Your task to perform on an android device: toggle notification dots Image 0: 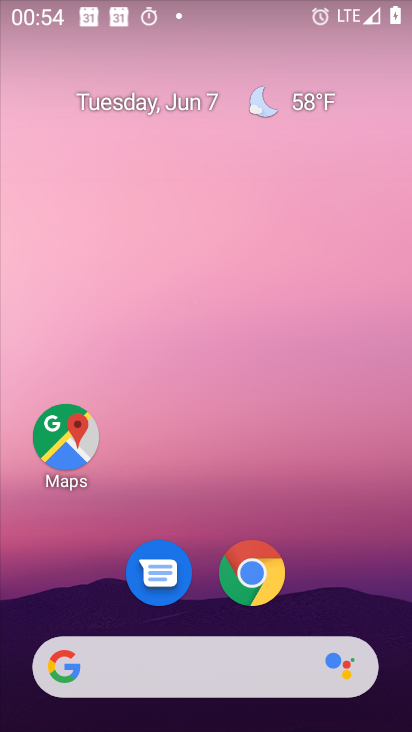
Step 0: press home button
Your task to perform on an android device: toggle notification dots Image 1: 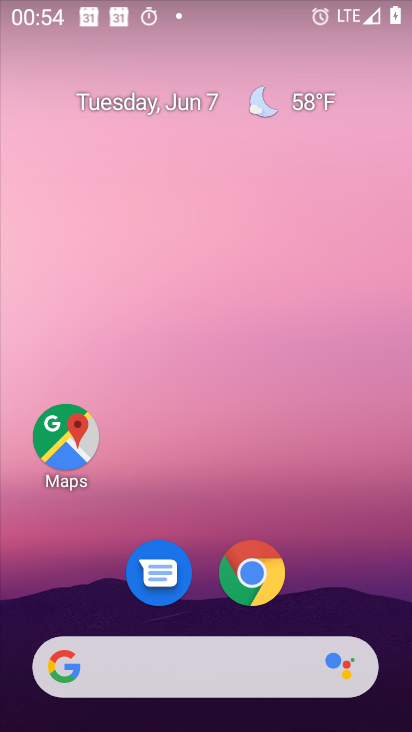
Step 1: drag from (356, 602) to (331, 4)
Your task to perform on an android device: toggle notification dots Image 2: 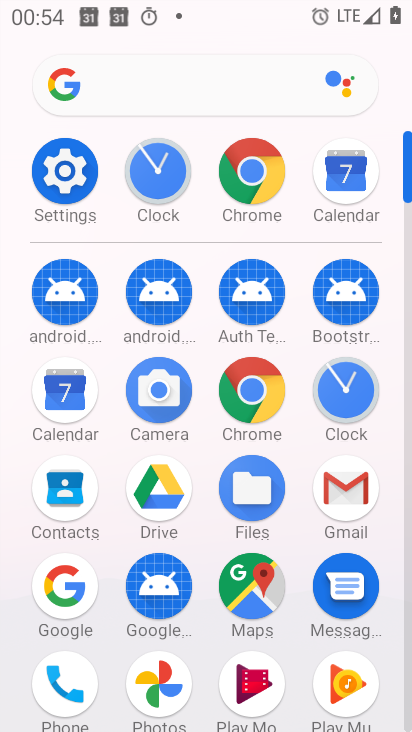
Step 2: click (89, 185)
Your task to perform on an android device: toggle notification dots Image 3: 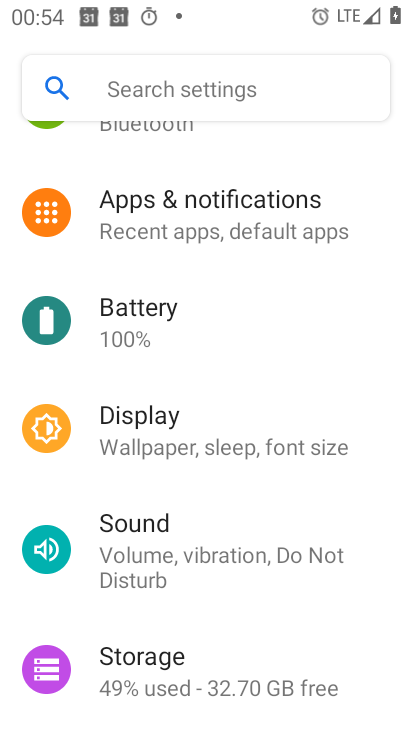
Step 3: drag from (301, 528) to (264, 430)
Your task to perform on an android device: toggle notification dots Image 4: 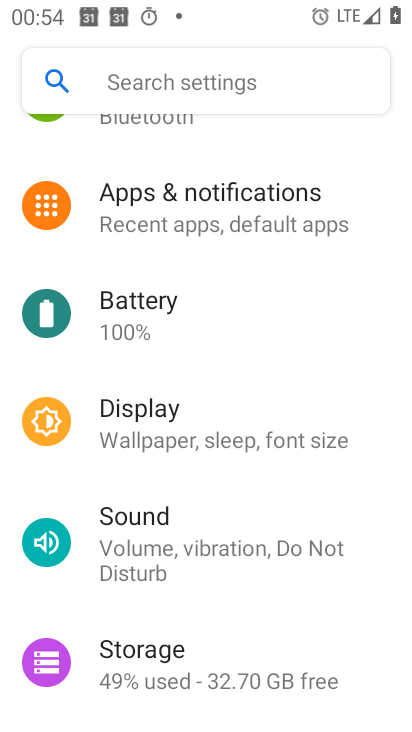
Step 4: click (231, 224)
Your task to perform on an android device: toggle notification dots Image 5: 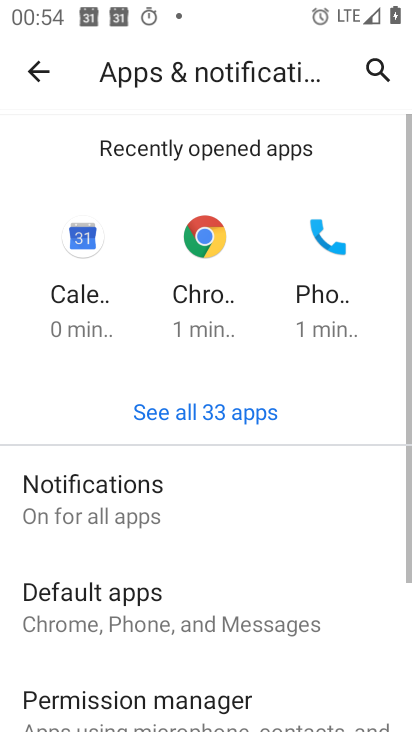
Step 5: click (175, 463)
Your task to perform on an android device: toggle notification dots Image 6: 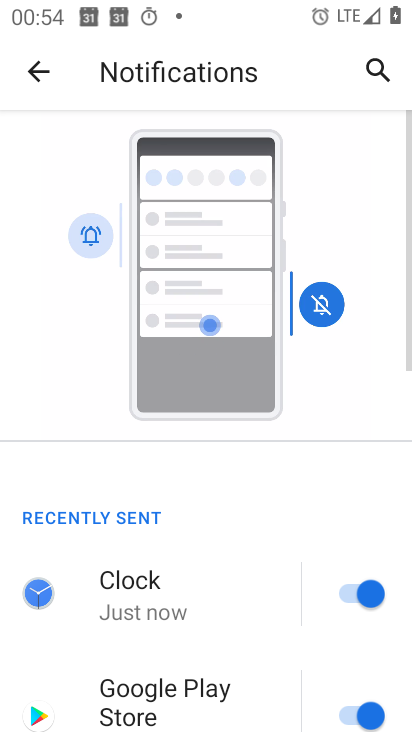
Step 6: drag from (224, 642) to (214, 78)
Your task to perform on an android device: toggle notification dots Image 7: 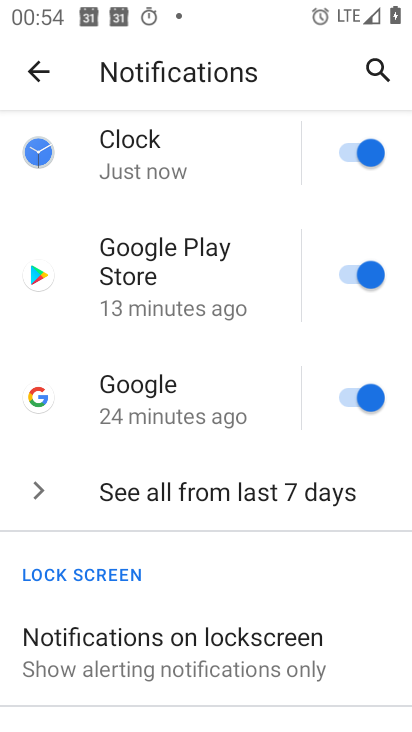
Step 7: drag from (258, 602) to (245, 354)
Your task to perform on an android device: toggle notification dots Image 8: 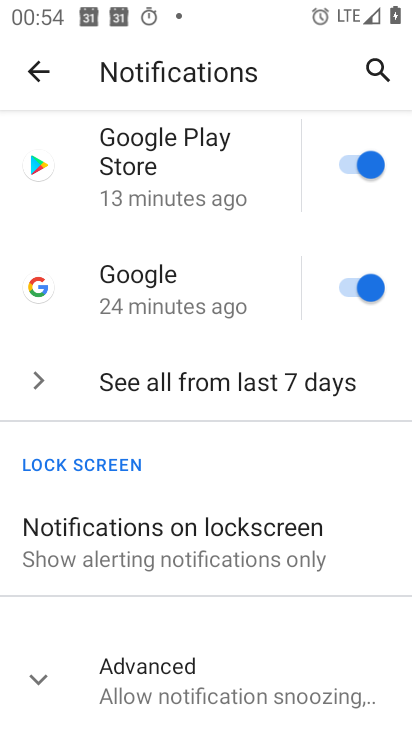
Step 8: drag from (276, 651) to (253, 530)
Your task to perform on an android device: toggle notification dots Image 9: 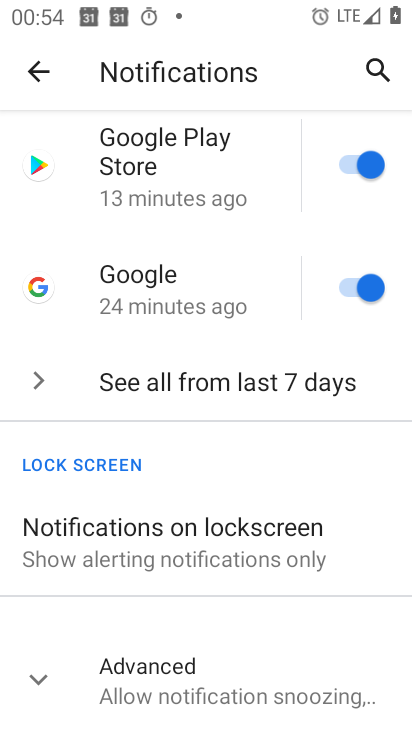
Step 9: click (194, 655)
Your task to perform on an android device: toggle notification dots Image 10: 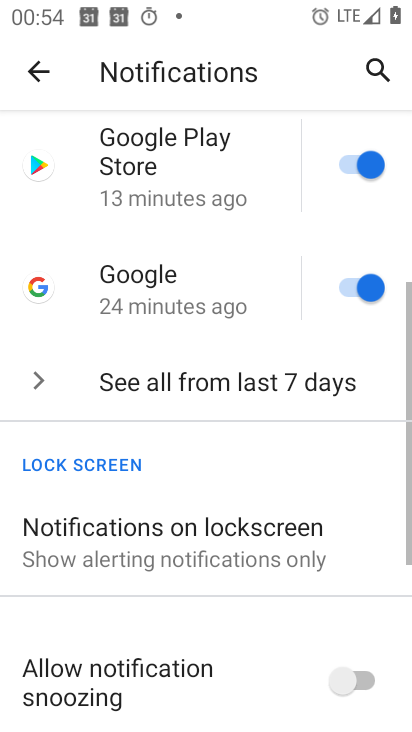
Step 10: drag from (221, 668) to (272, 218)
Your task to perform on an android device: toggle notification dots Image 11: 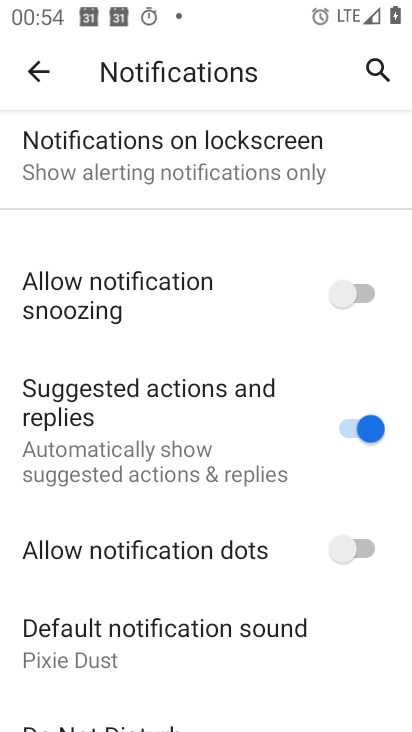
Step 11: click (179, 556)
Your task to perform on an android device: toggle notification dots Image 12: 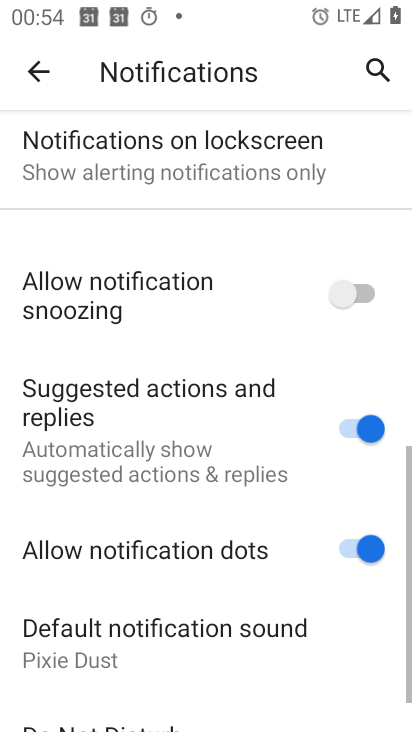
Step 12: task complete